Your task to perform on an android device: stop showing notifications on the lock screen Image 0: 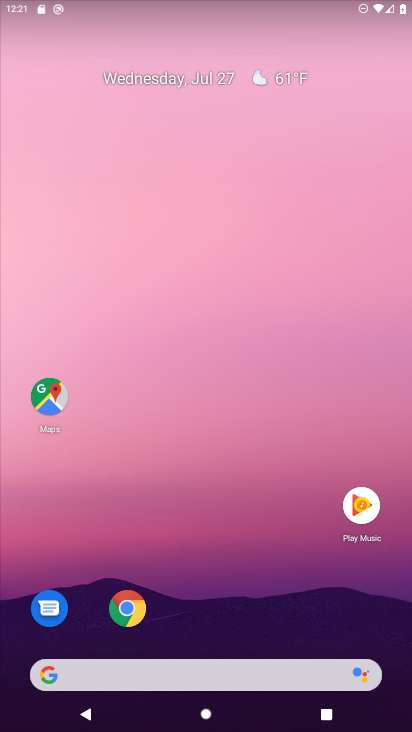
Step 0: press home button
Your task to perform on an android device: stop showing notifications on the lock screen Image 1: 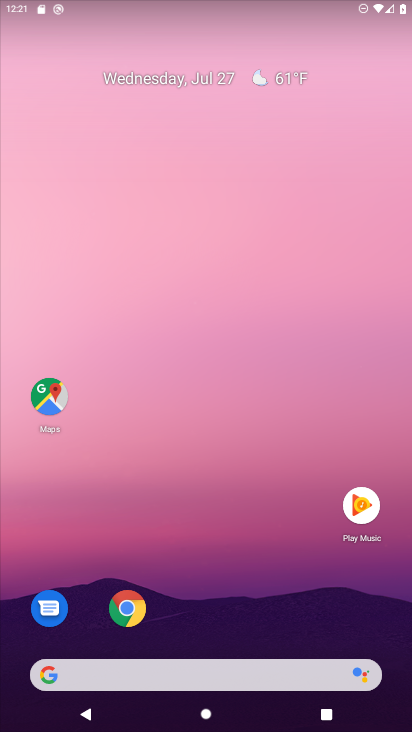
Step 1: drag from (301, 629) to (287, 187)
Your task to perform on an android device: stop showing notifications on the lock screen Image 2: 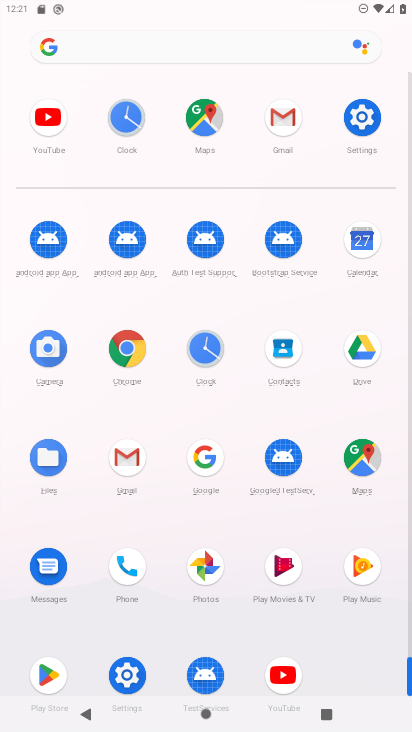
Step 2: click (360, 119)
Your task to perform on an android device: stop showing notifications on the lock screen Image 3: 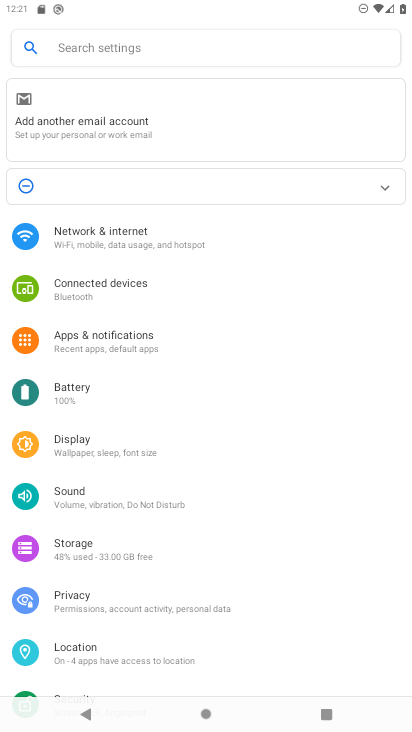
Step 3: drag from (317, 421) to (324, 360)
Your task to perform on an android device: stop showing notifications on the lock screen Image 4: 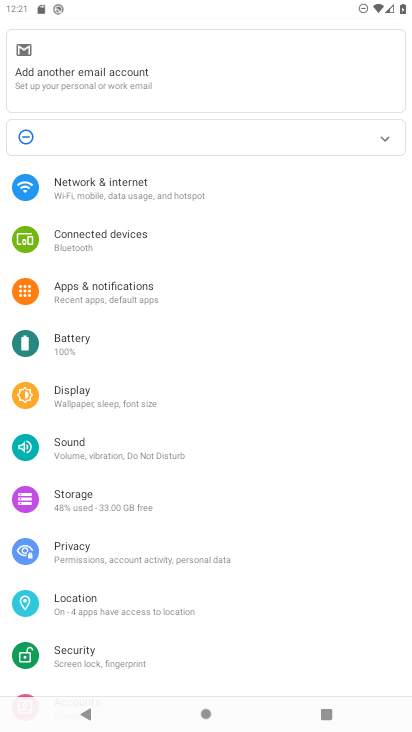
Step 4: drag from (335, 491) to (334, 424)
Your task to perform on an android device: stop showing notifications on the lock screen Image 5: 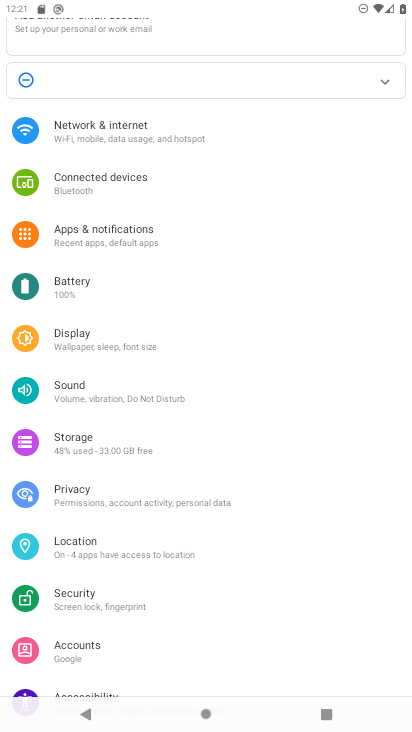
Step 5: drag from (332, 539) to (338, 461)
Your task to perform on an android device: stop showing notifications on the lock screen Image 6: 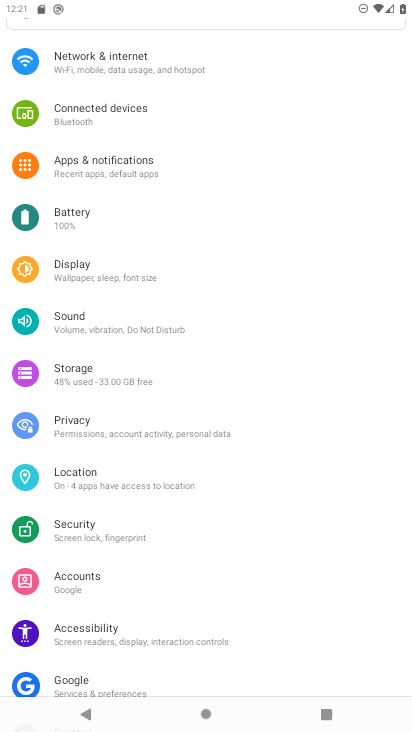
Step 6: drag from (335, 578) to (336, 527)
Your task to perform on an android device: stop showing notifications on the lock screen Image 7: 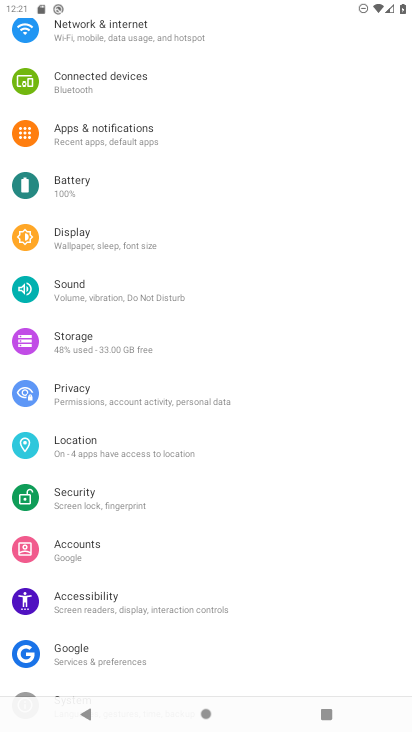
Step 7: drag from (325, 597) to (330, 522)
Your task to perform on an android device: stop showing notifications on the lock screen Image 8: 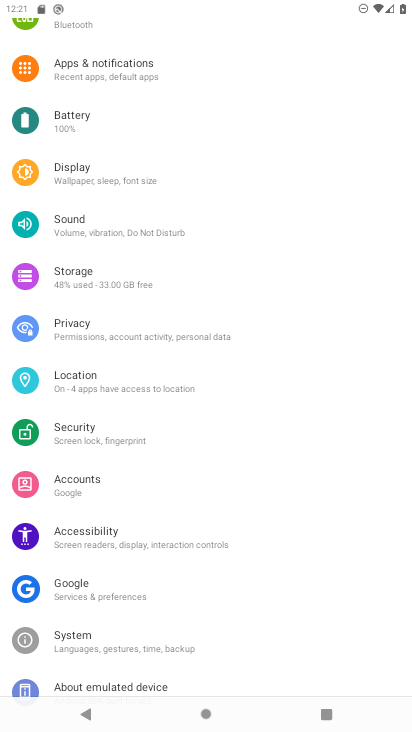
Step 8: drag from (339, 589) to (341, 512)
Your task to perform on an android device: stop showing notifications on the lock screen Image 9: 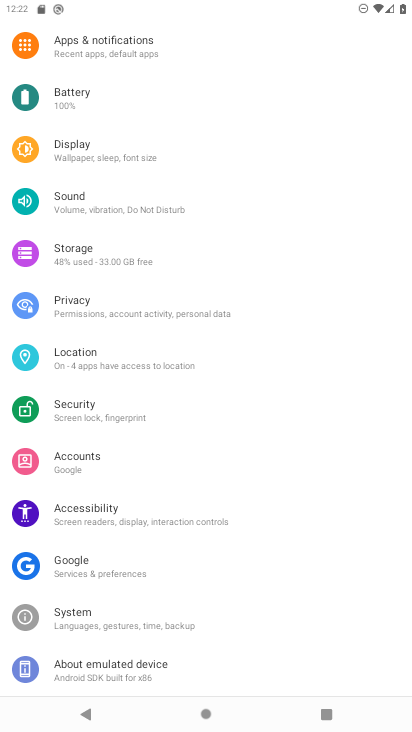
Step 9: drag from (338, 613) to (341, 532)
Your task to perform on an android device: stop showing notifications on the lock screen Image 10: 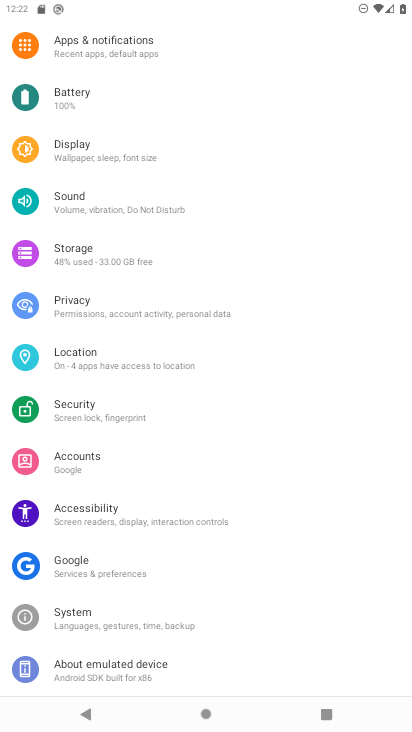
Step 10: drag from (319, 362) to (319, 426)
Your task to perform on an android device: stop showing notifications on the lock screen Image 11: 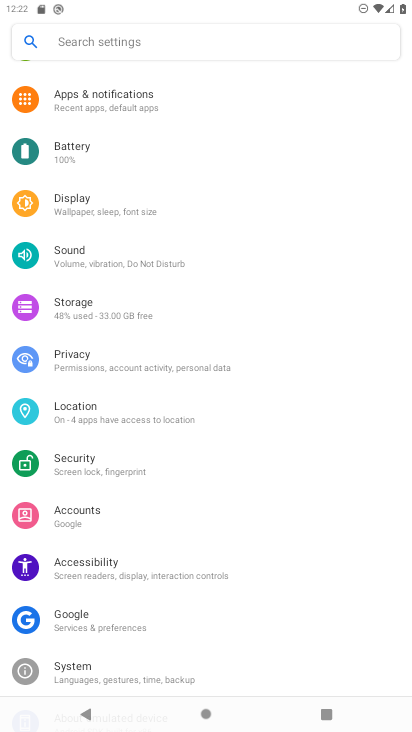
Step 11: drag from (323, 329) to (323, 384)
Your task to perform on an android device: stop showing notifications on the lock screen Image 12: 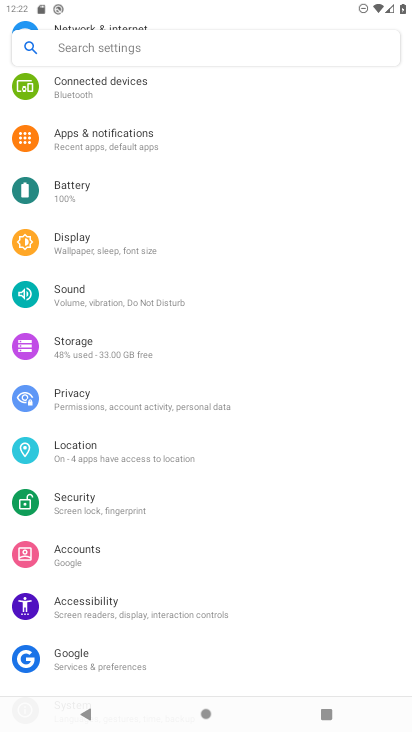
Step 12: click (327, 353)
Your task to perform on an android device: stop showing notifications on the lock screen Image 13: 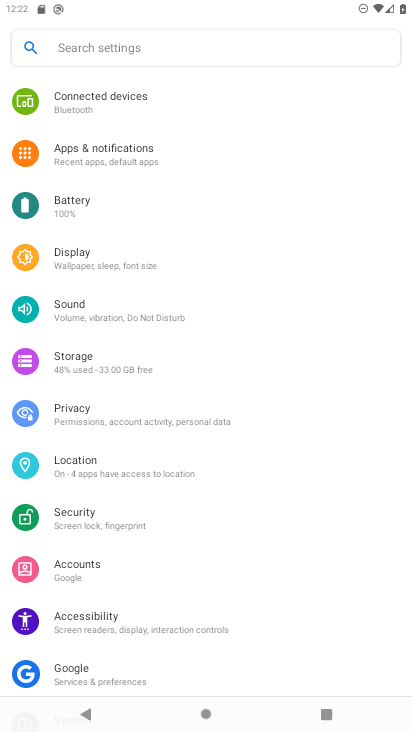
Step 13: drag from (330, 292) to (330, 368)
Your task to perform on an android device: stop showing notifications on the lock screen Image 14: 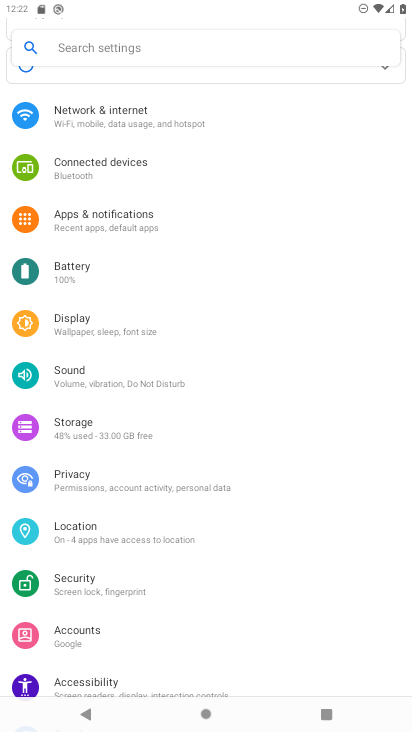
Step 14: drag from (324, 281) to (322, 349)
Your task to perform on an android device: stop showing notifications on the lock screen Image 15: 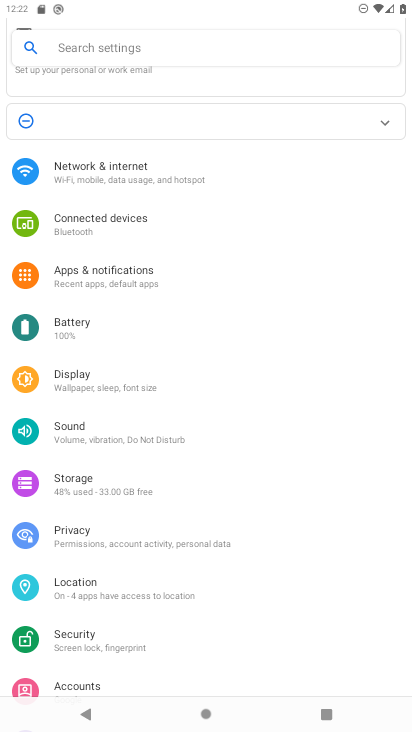
Step 15: drag from (314, 298) to (315, 352)
Your task to perform on an android device: stop showing notifications on the lock screen Image 16: 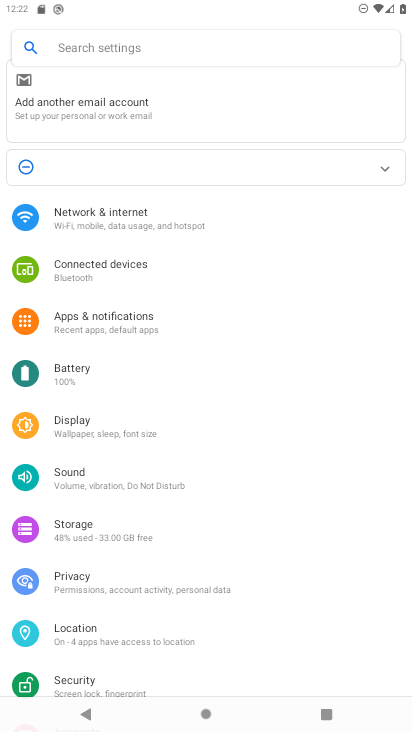
Step 16: drag from (300, 296) to (300, 419)
Your task to perform on an android device: stop showing notifications on the lock screen Image 17: 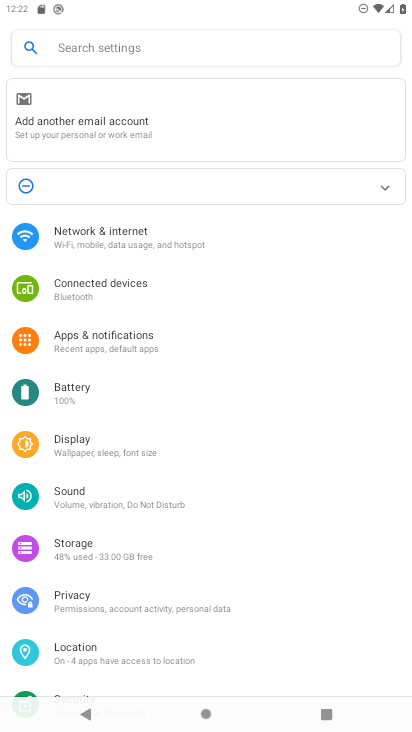
Step 17: click (165, 341)
Your task to perform on an android device: stop showing notifications on the lock screen Image 18: 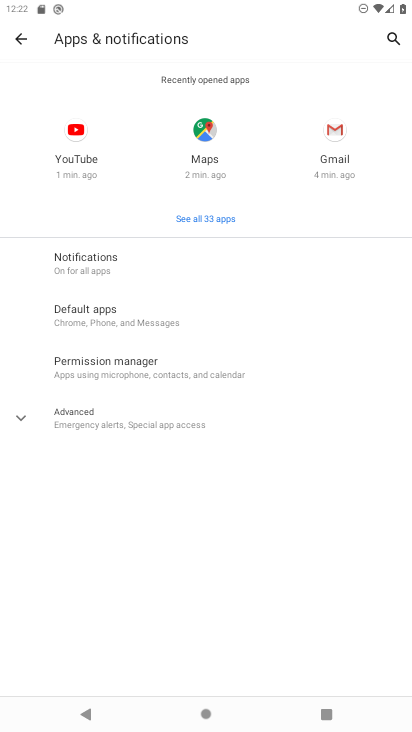
Step 18: click (207, 274)
Your task to perform on an android device: stop showing notifications on the lock screen Image 19: 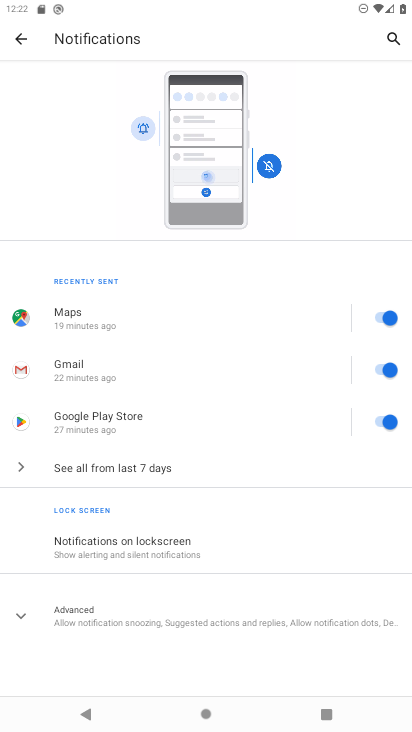
Step 19: drag from (293, 490) to (293, 419)
Your task to perform on an android device: stop showing notifications on the lock screen Image 20: 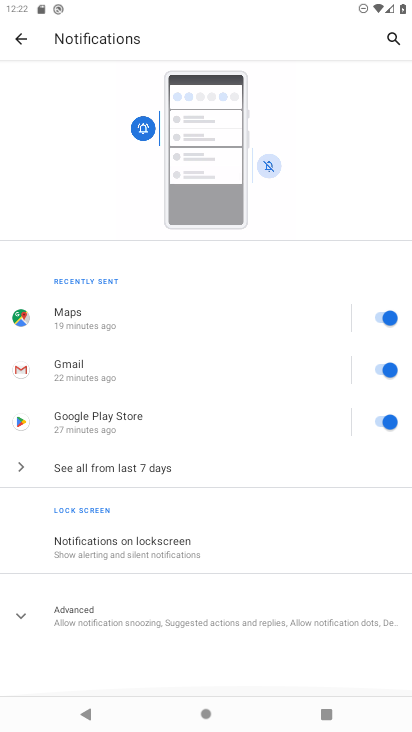
Step 20: click (278, 528)
Your task to perform on an android device: stop showing notifications on the lock screen Image 21: 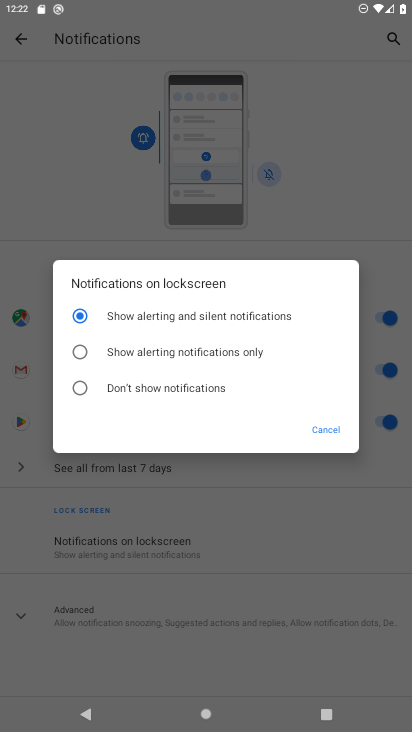
Step 21: click (209, 377)
Your task to perform on an android device: stop showing notifications on the lock screen Image 22: 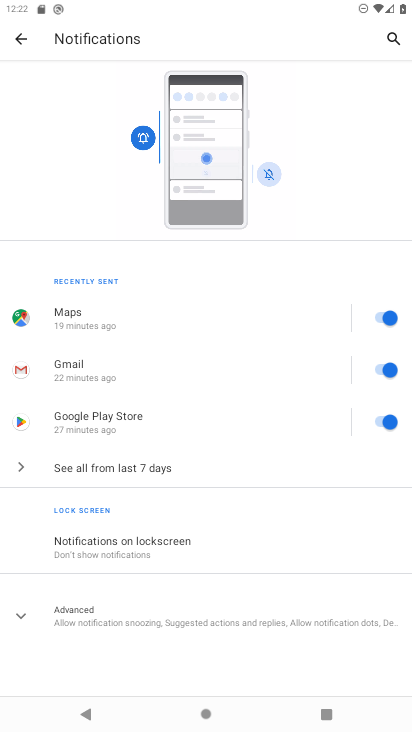
Step 22: task complete